Your task to perform on an android device: open app "Life360: Find Family & Friends" Image 0: 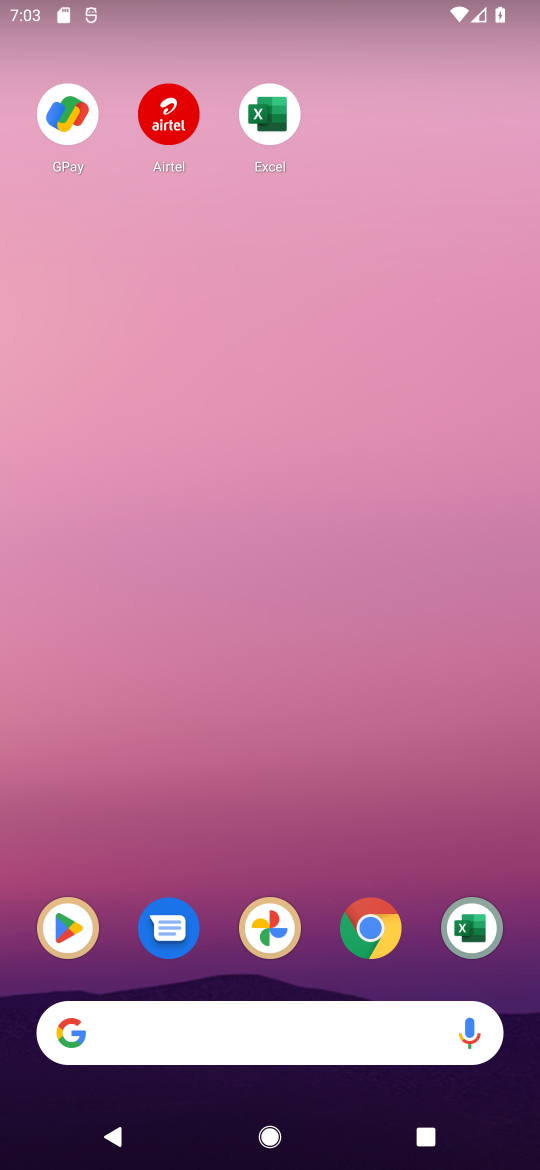
Step 0: click (82, 932)
Your task to perform on an android device: open app "Life360: Find Family & Friends" Image 1: 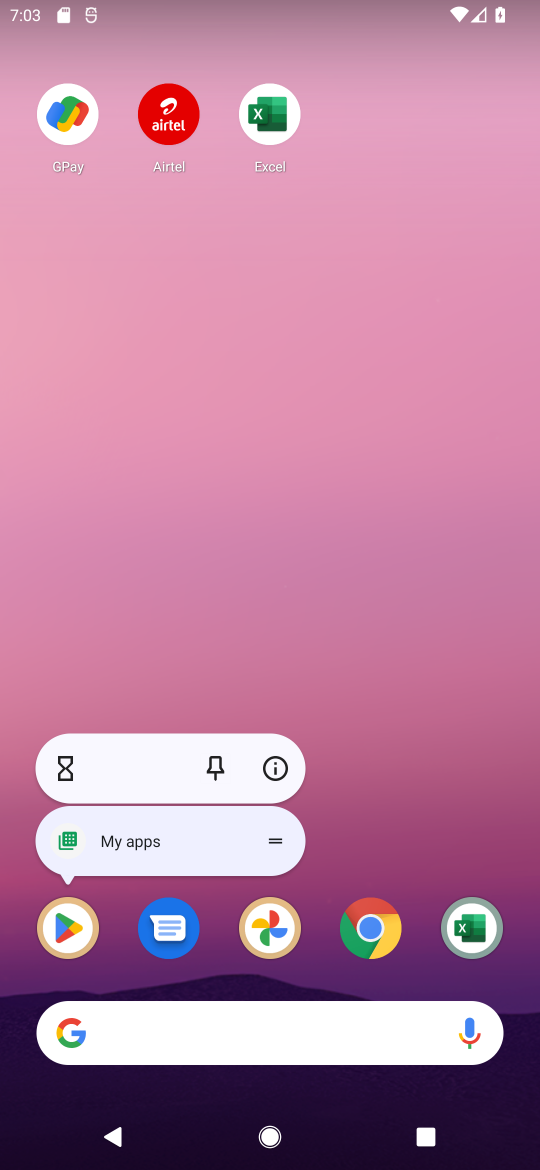
Step 1: click (82, 932)
Your task to perform on an android device: open app "Life360: Find Family & Friends" Image 2: 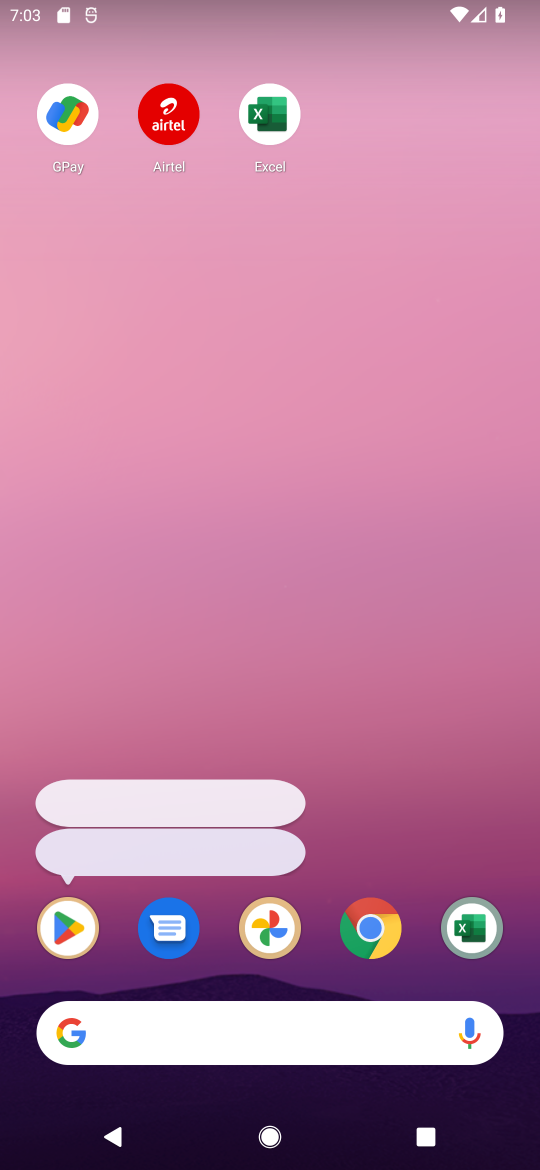
Step 2: click (64, 966)
Your task to perform on an android device: open app "Life360: Find Family & Friends" Image 3: 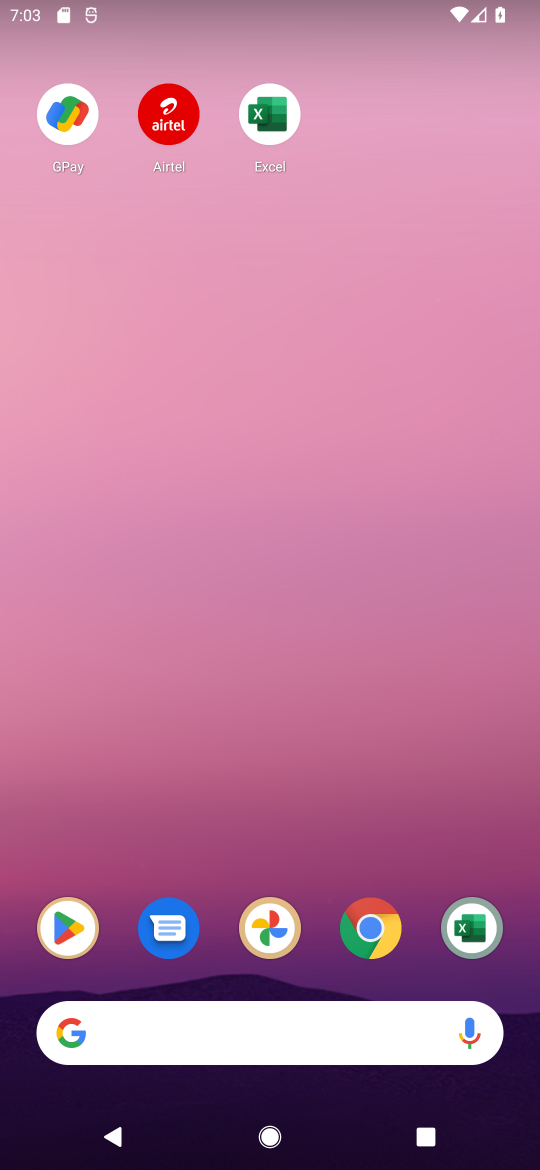
Step 3: click (59, 926)
Your task to perform on an android device: open app "Life360: Find Family & Friends" Image 4: 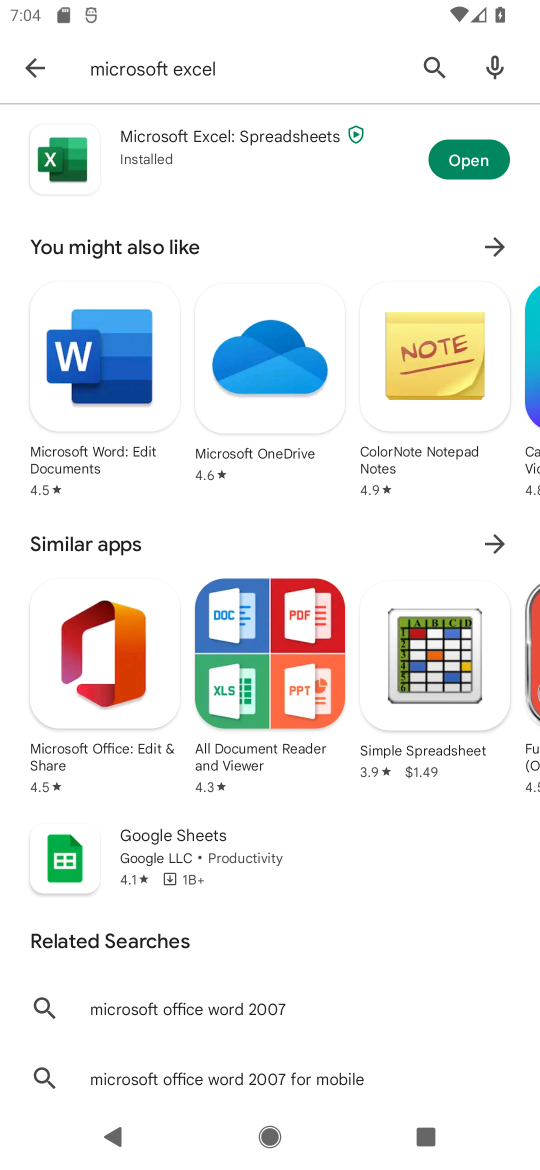
Step 4: click (423, 77)
Your task to perform on an android device: open app "Life360: Find Family & Friends" Image 5: 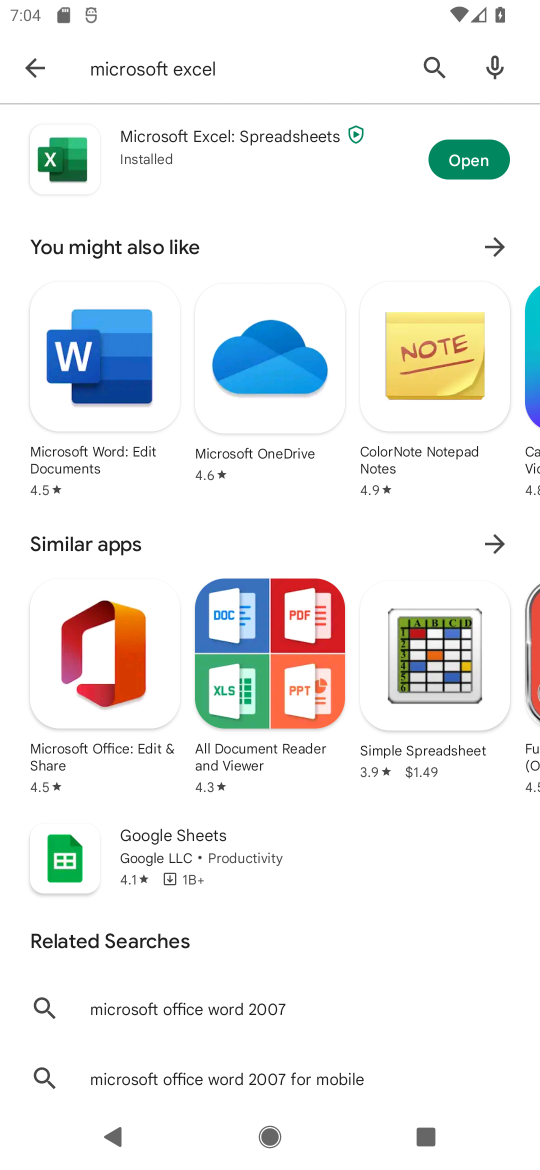
Step 5: click (423, 77)
Your task to perform on an android device: open app "Life360: Find Family & Friends" Image 6: 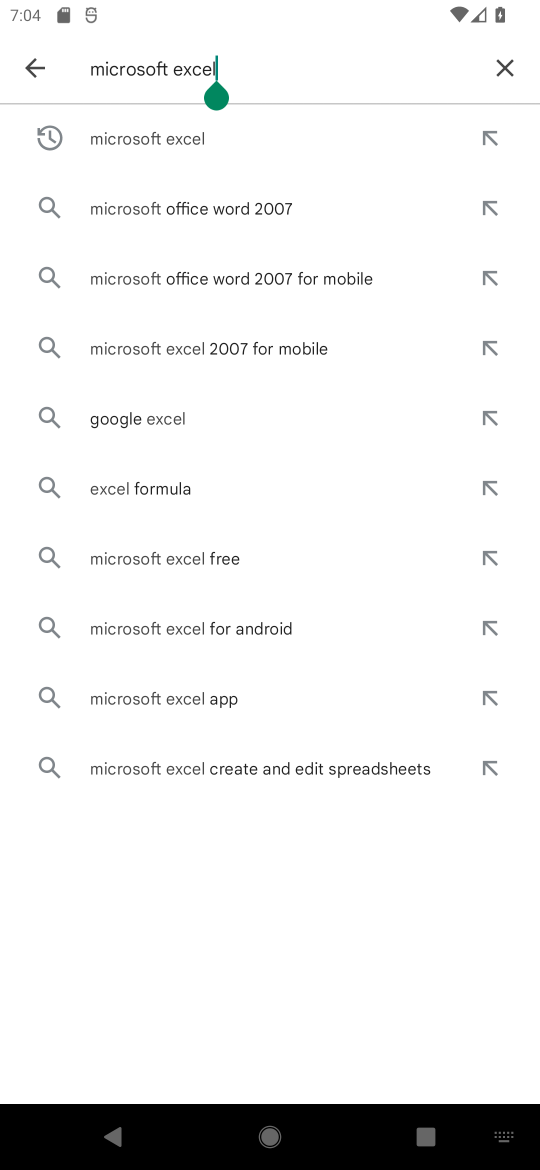
Step 6: click (508, 59)
Your task to perform on an android device: open app "Life360: Find Family & Friends" Image 7: 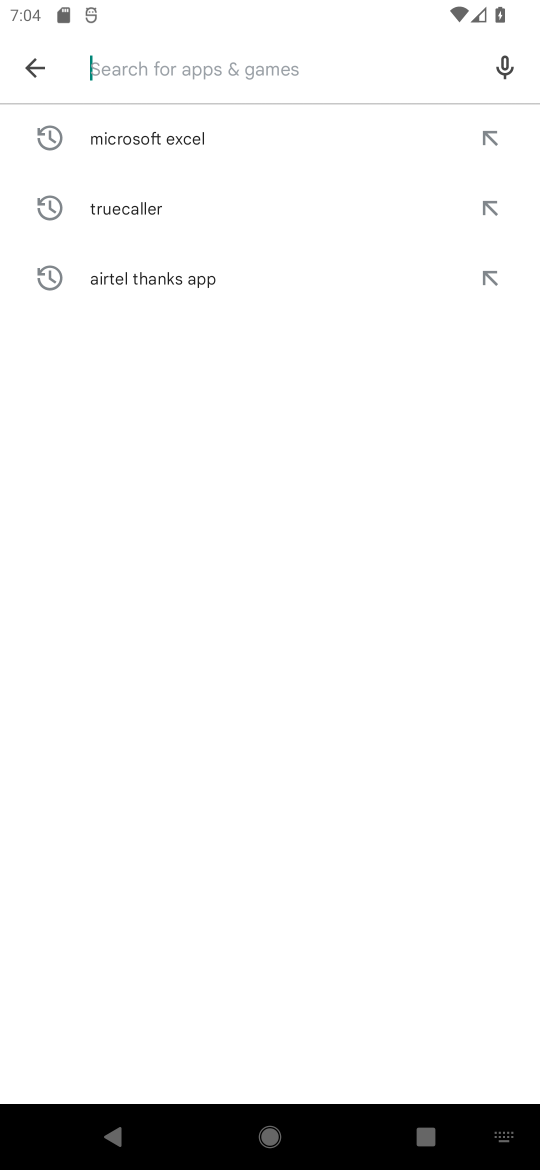
Step 7: type "life360 "
Your task to perform on an android device: open app "Life360: Find Family & Friends" Image 8: 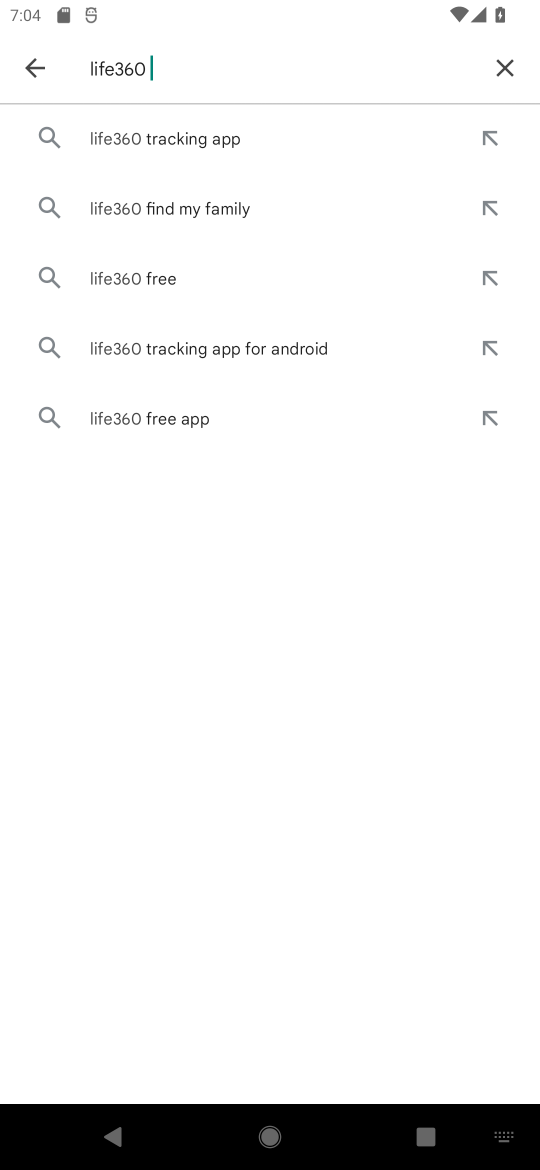
Step 8: click (279, 211)
Your task to perform on an android device: open app "Life360: Find Family & Friends" Image 9: 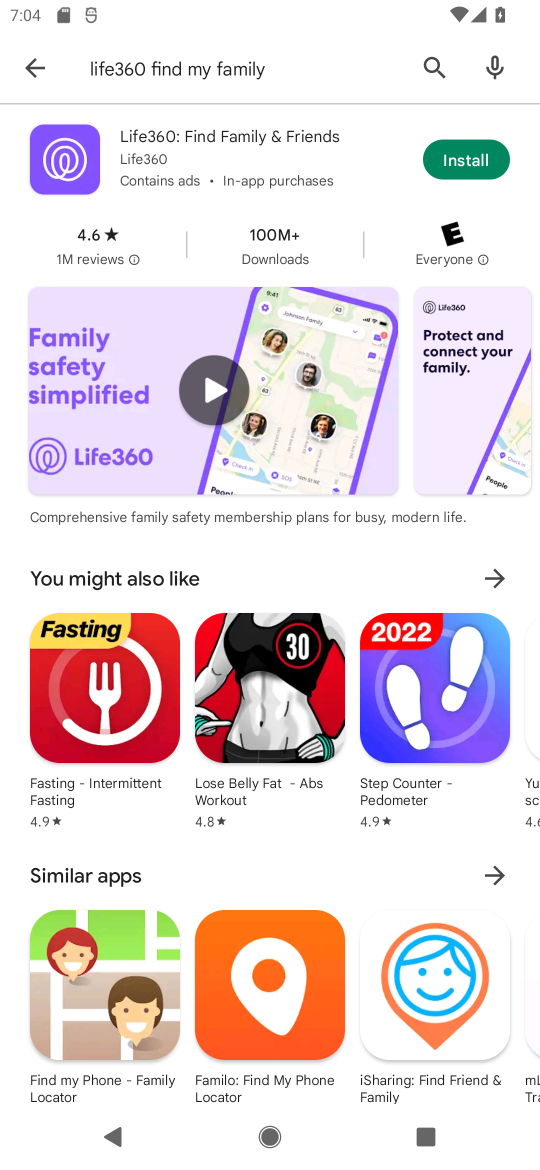
Step 9: task complete